Your task to perform on an android device: Do I have any events tomorrow? Image 0: 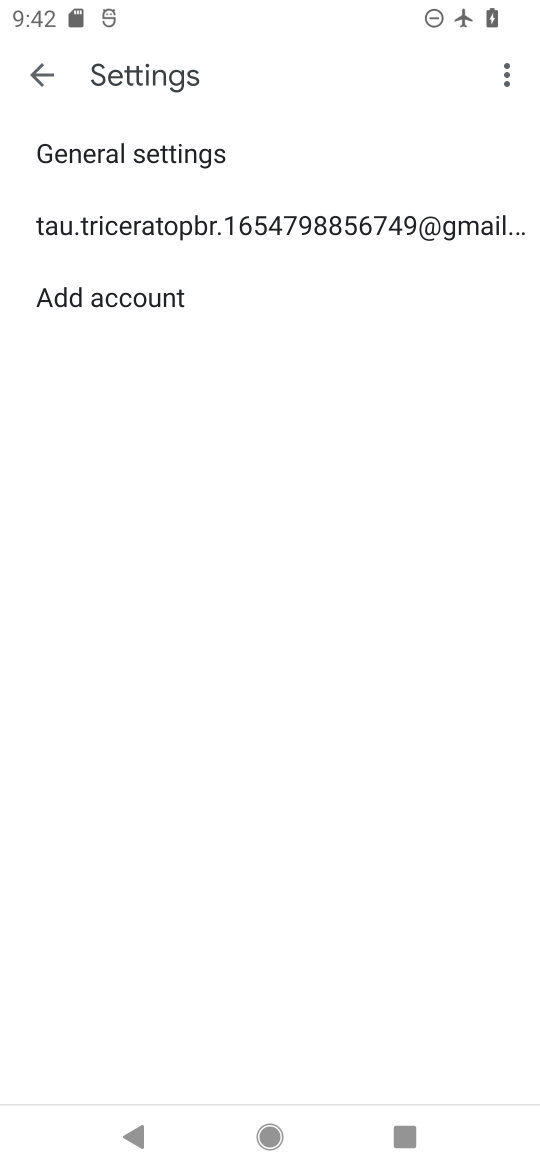
Step 0: press home button
Your task to perform on an android device: Do I have any events tomorrow? Image 1: 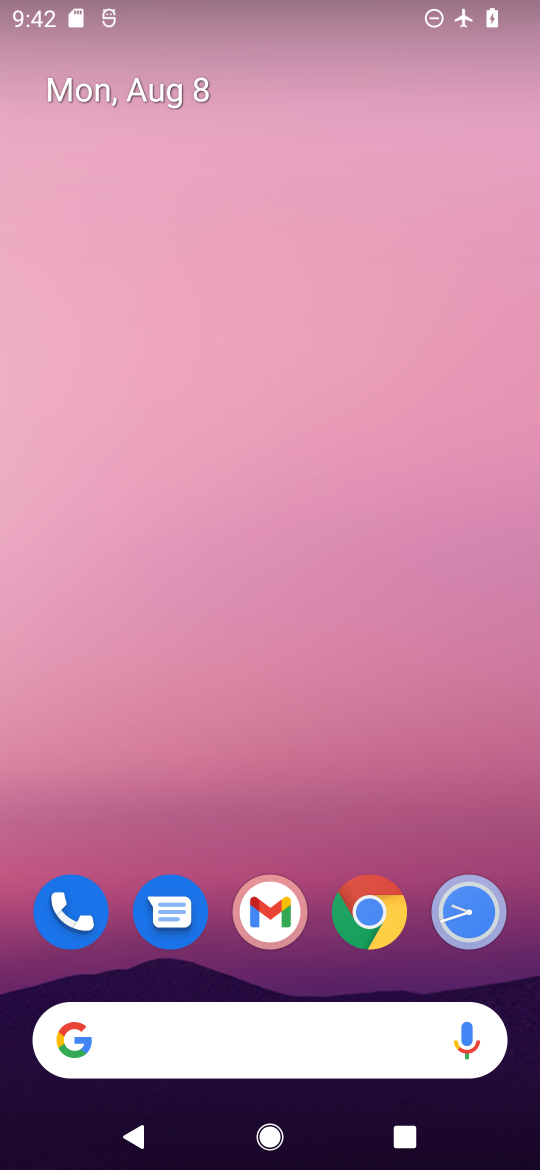
Step 1: drag from (515, 889) to (270, 39)
Your task to perform on an android device: Do I have any events tomorrow? Image 2: 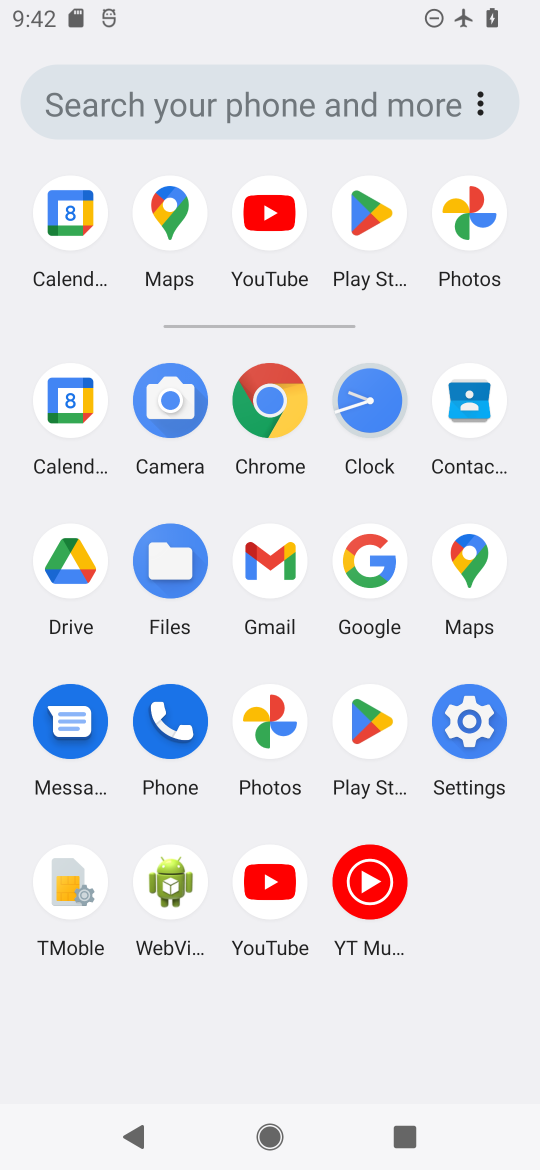
Step 2: click (475, 383)
Your task to perform on an android device: Do I have any events tomorrow? Image 3: 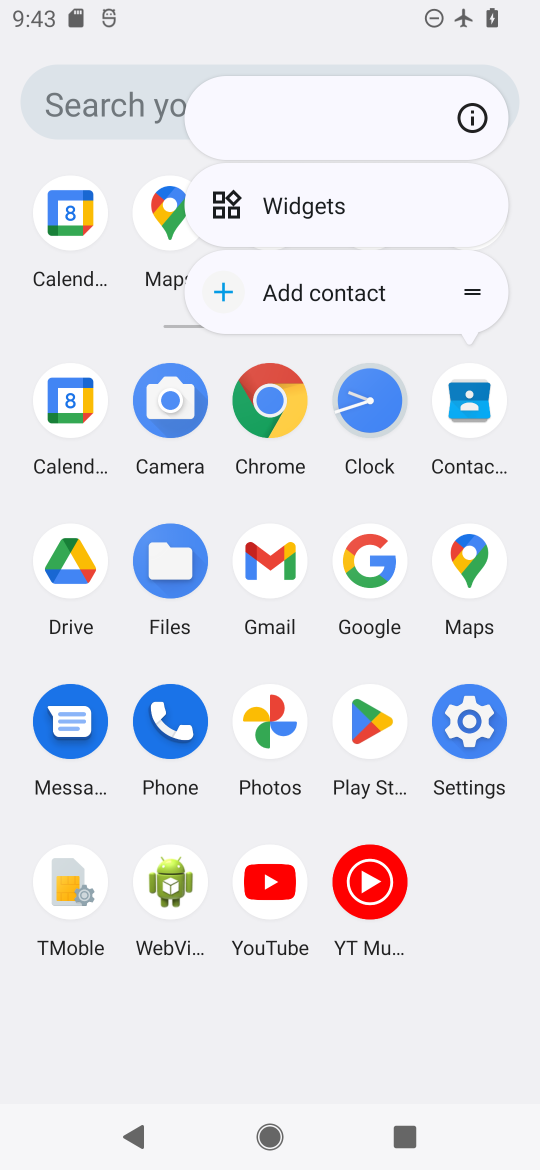
Step 3: click (490, 386)
Your task to perform on an android device: Do I have any events tomorrow? Image 4: 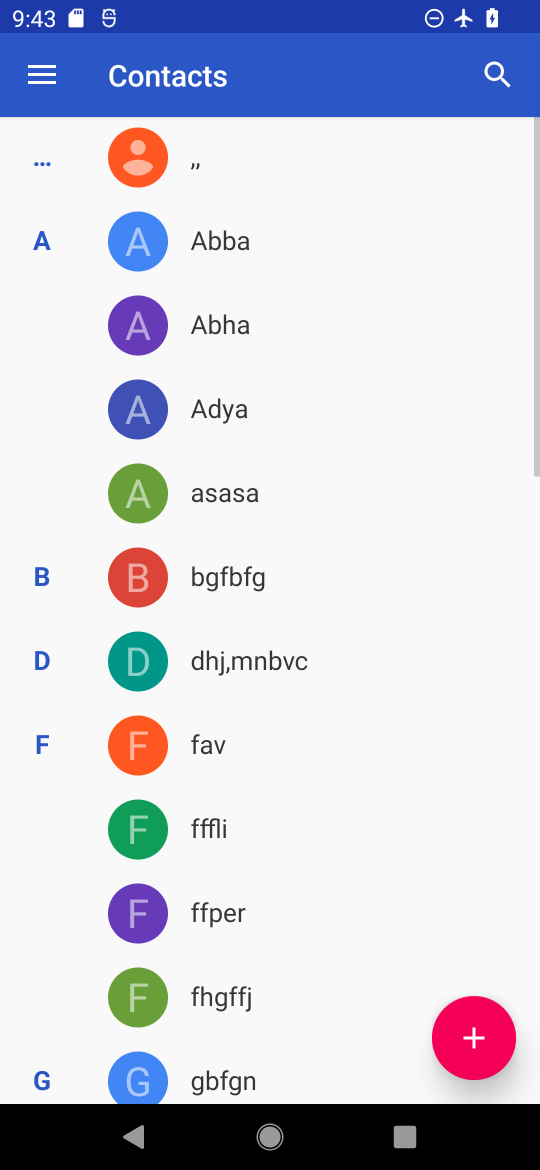
Step 4: task complete